Your task to perform on an android device: toggle wifi Image 0: 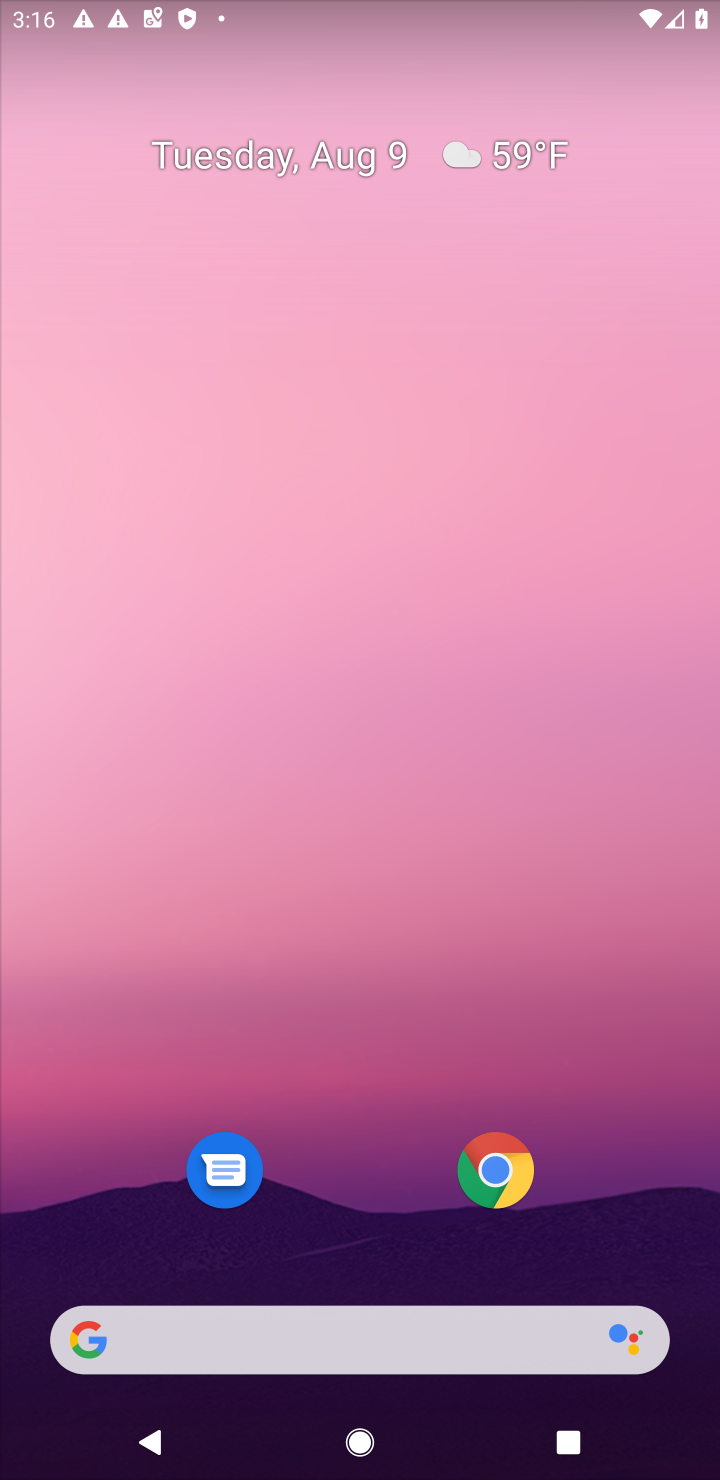
Step 0: press home button
Your task to perform on an android device: toggle wifi Image 1: 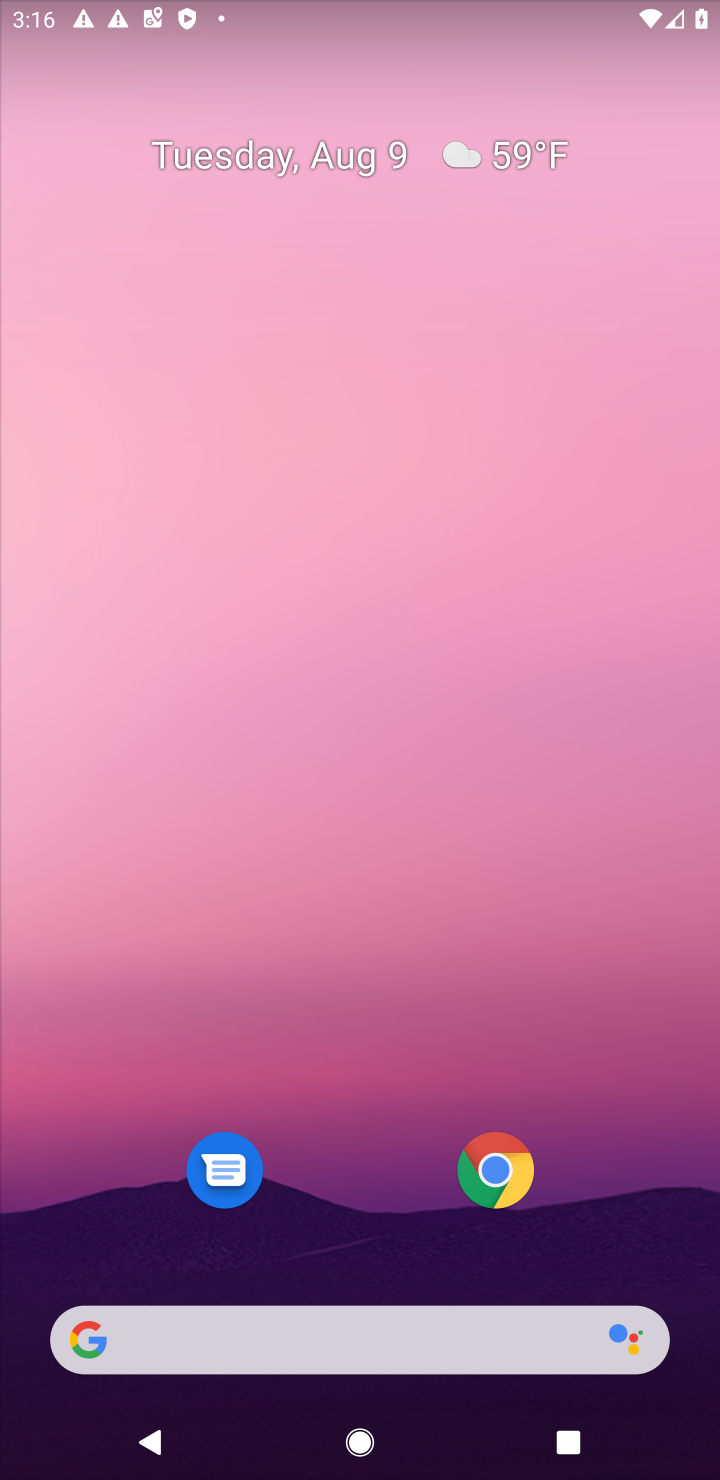
Step 1: drag from (396, 1127) to (417, 190)
Your task to perform on an android device: toggle wifi Image 2: 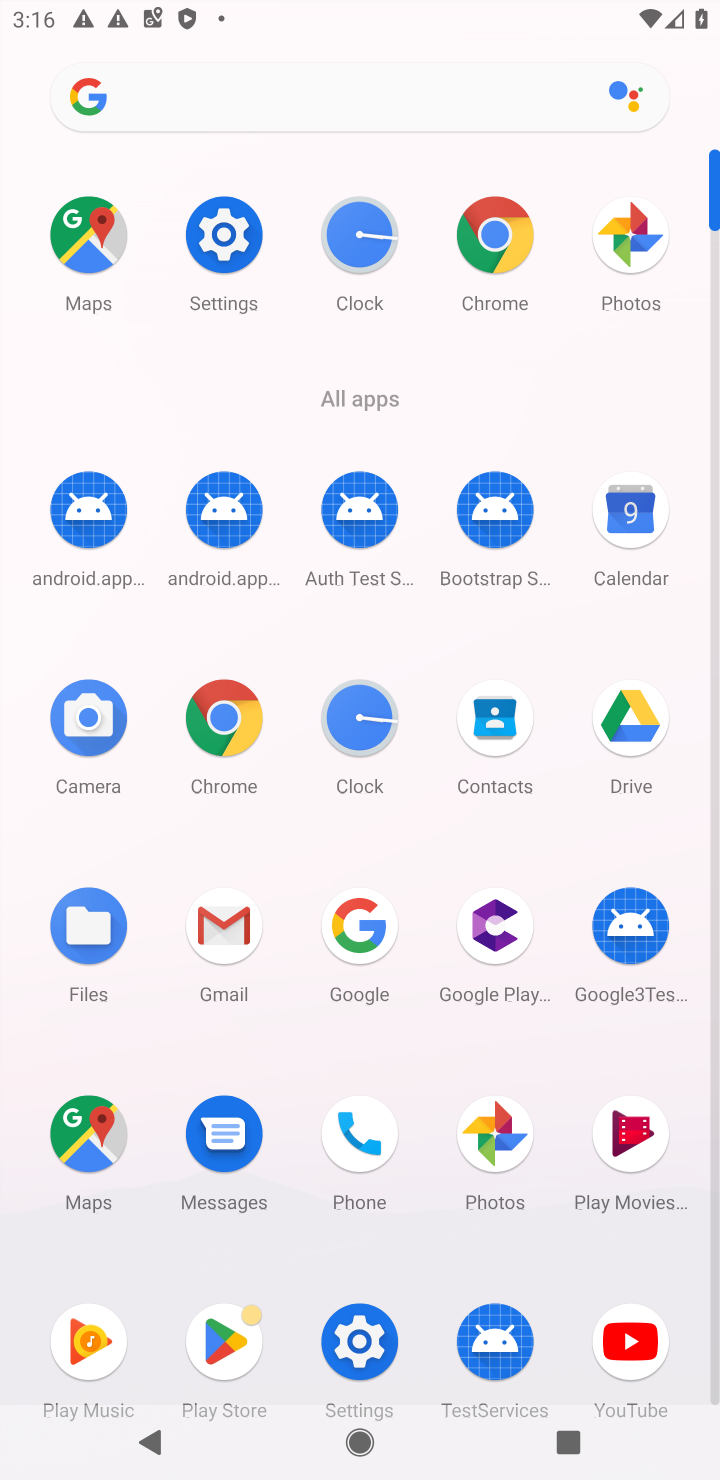
Step 2: click (220, 225)
Your task to perform on an android device: toggle wifi Image 3: 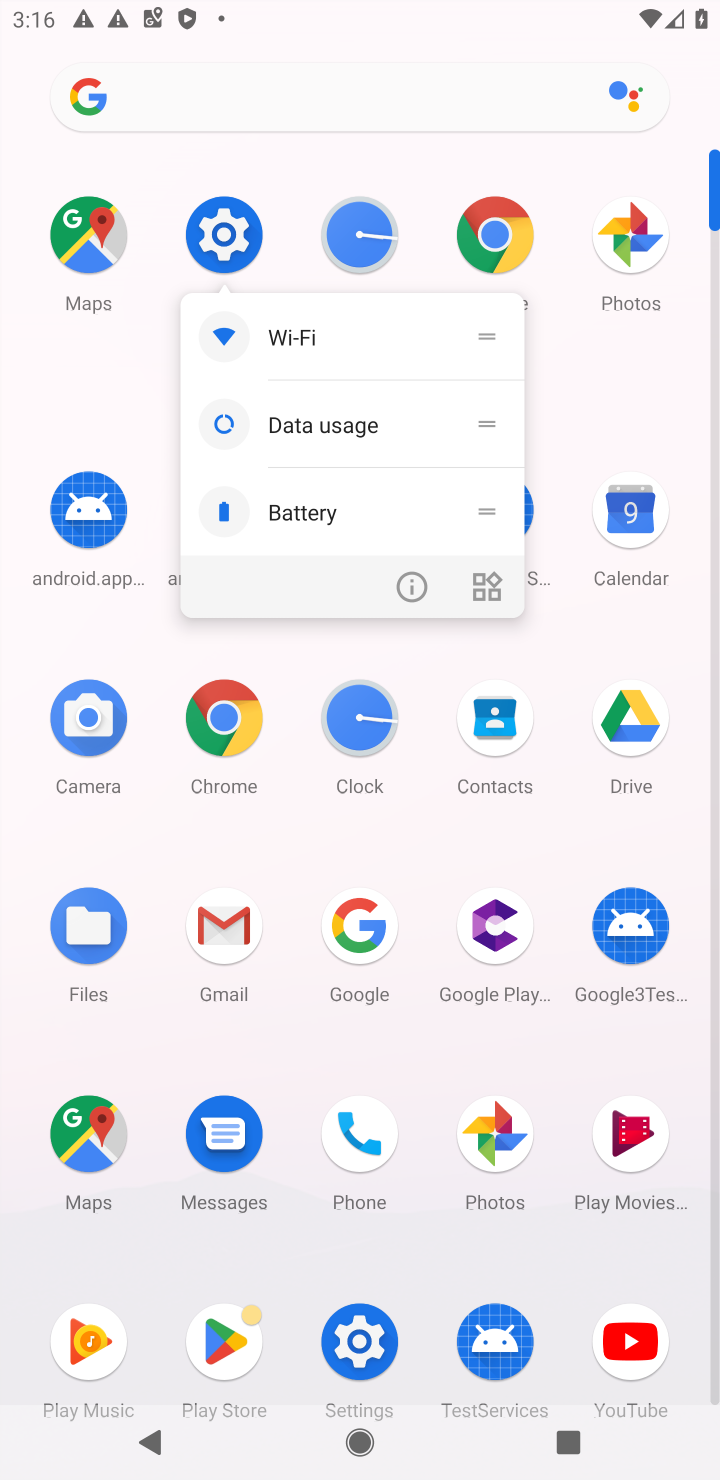
Step 3: click (234, 222)
Your task to perform on an android device: toggle wifi Image 4: 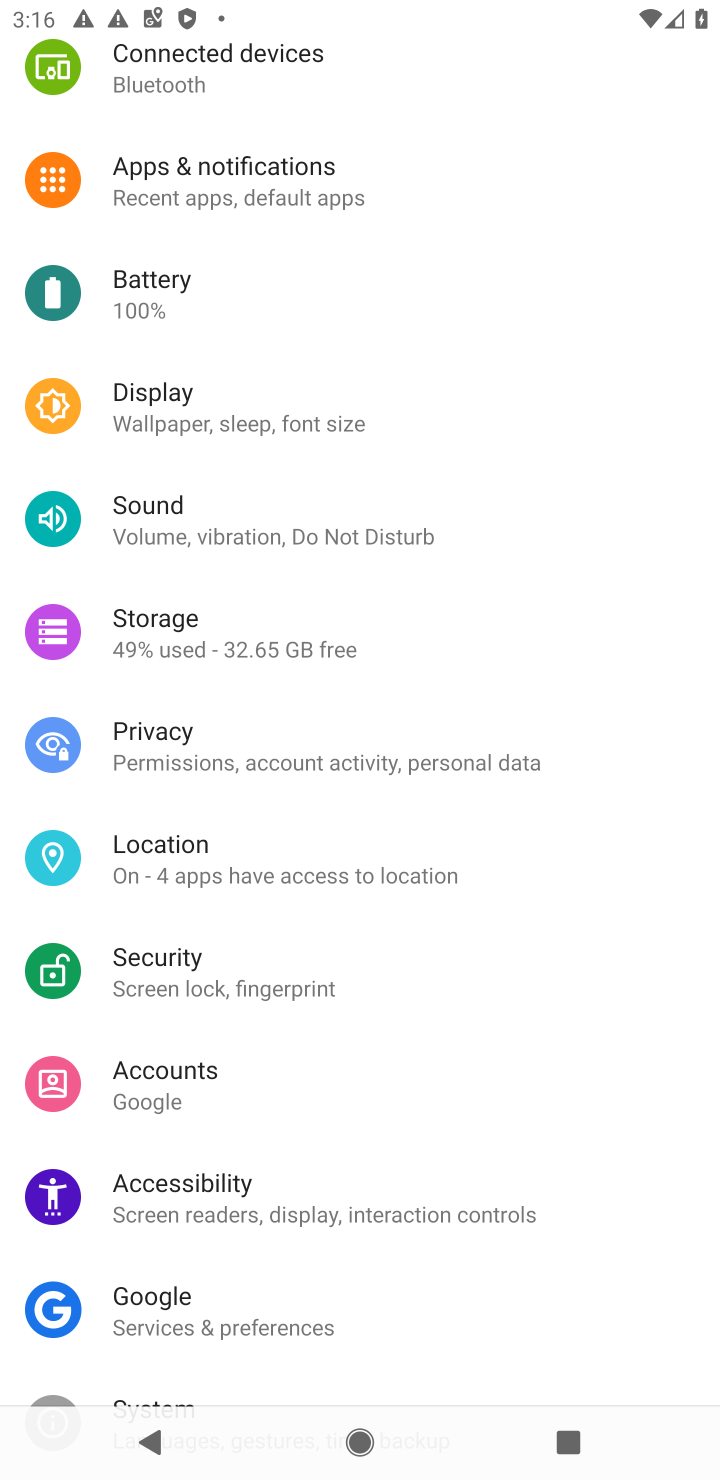
Step 4: drag from (297, 116) to (305, 1099)
Your task to perform on an android device: toggle wifi Image 5: 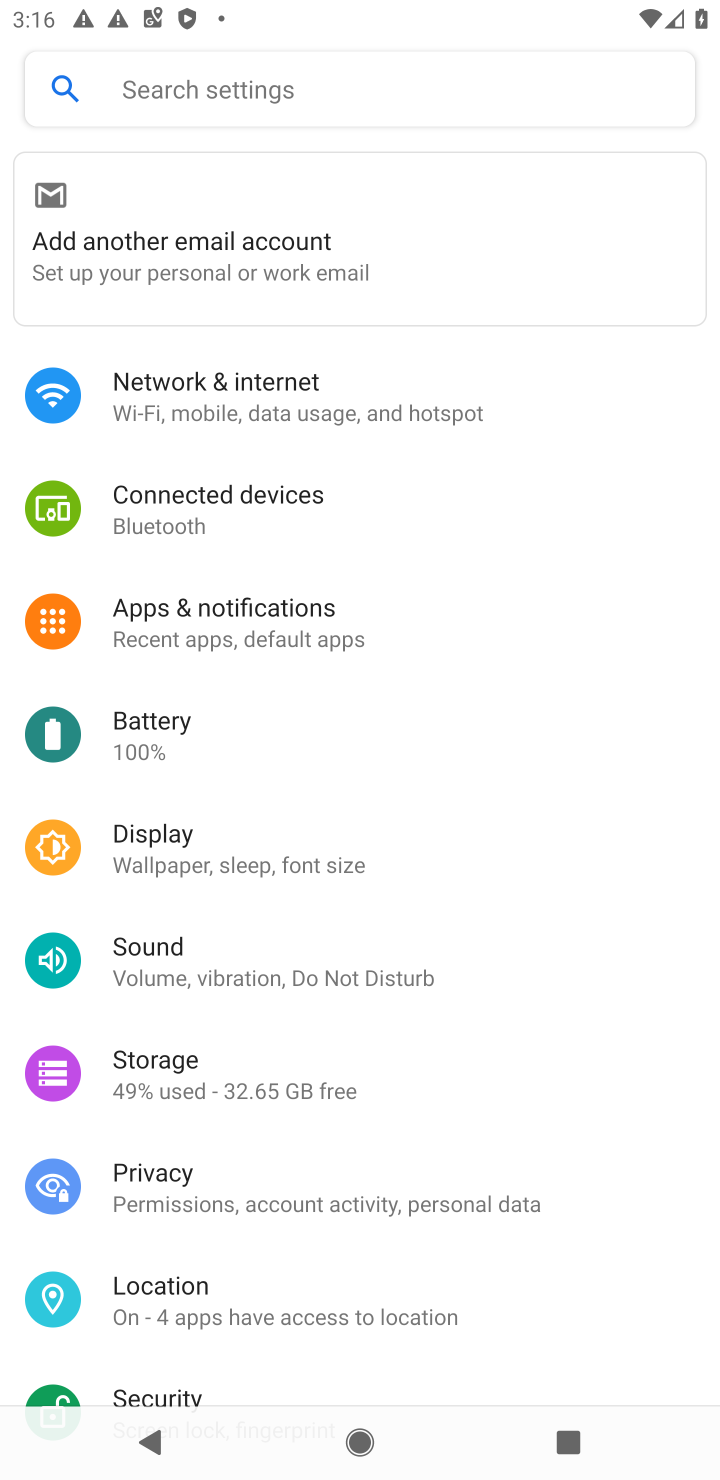
Step 5: click (317, 392)
Your task to perform on an android device: toggle wifi Image 6: 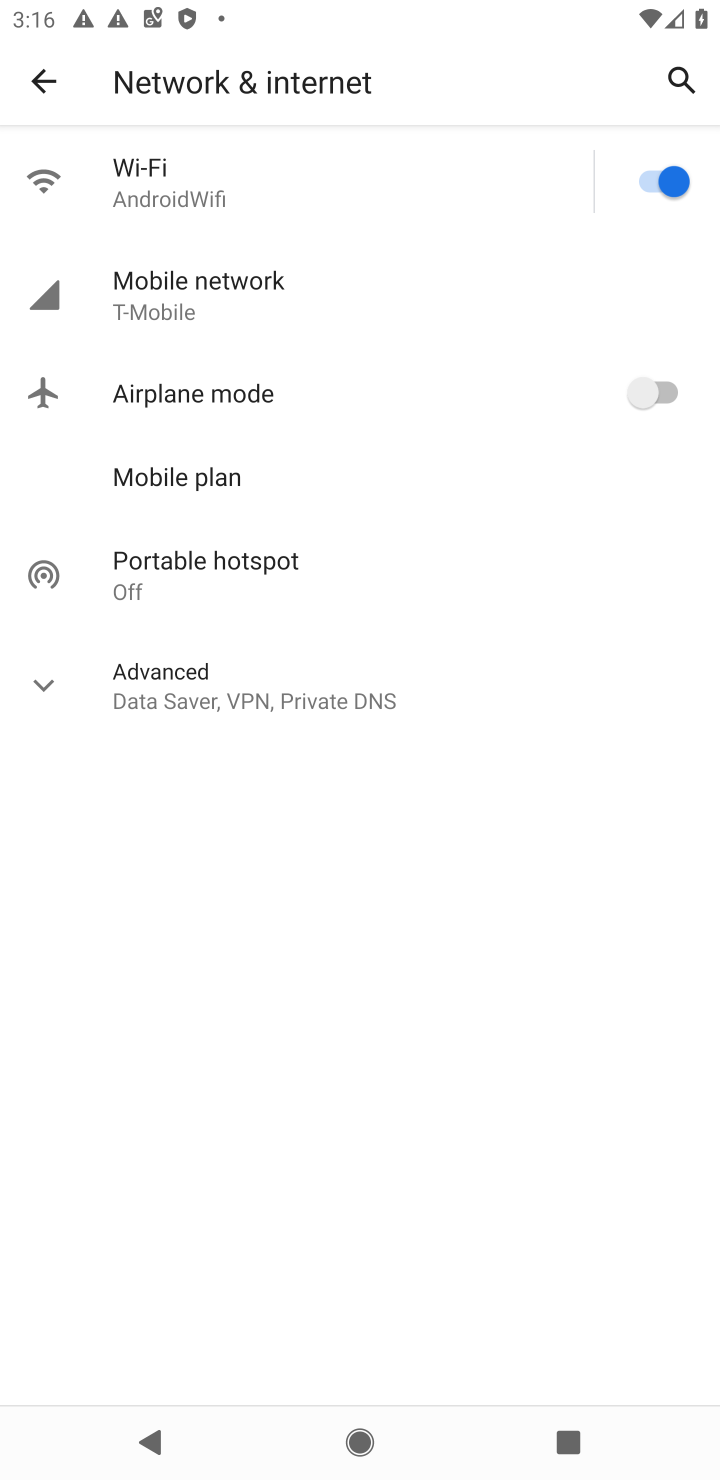
Step 6: click (670, 187)
Your task to perform on an android device: toggle wifi Image 7: 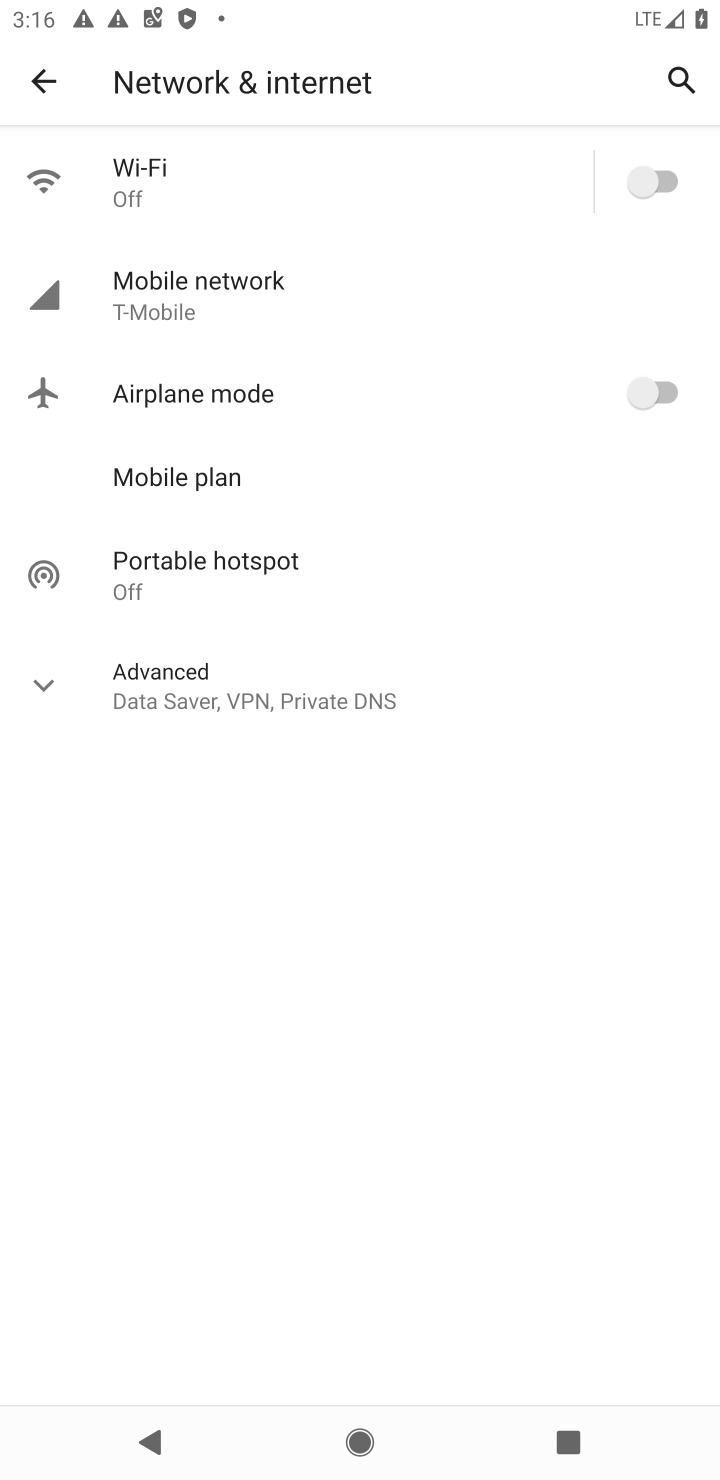
Step 7: task complete